Your task to perform on an android device: Show me popular videos on Youtube Image 0: 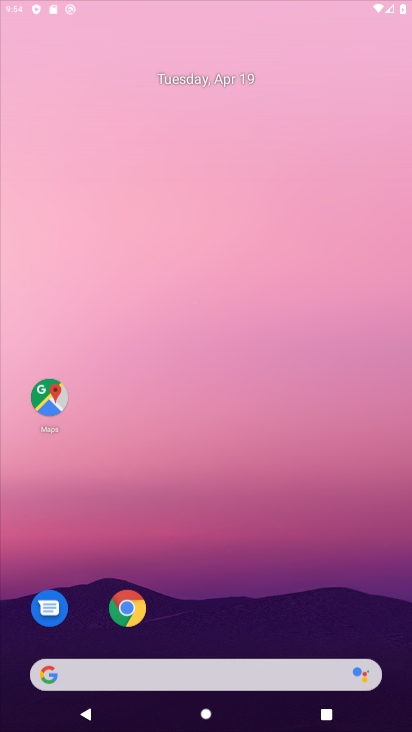
Step 0: press back button
Your task to perform on an android device: Show me popular videos on Youtube Image 1: 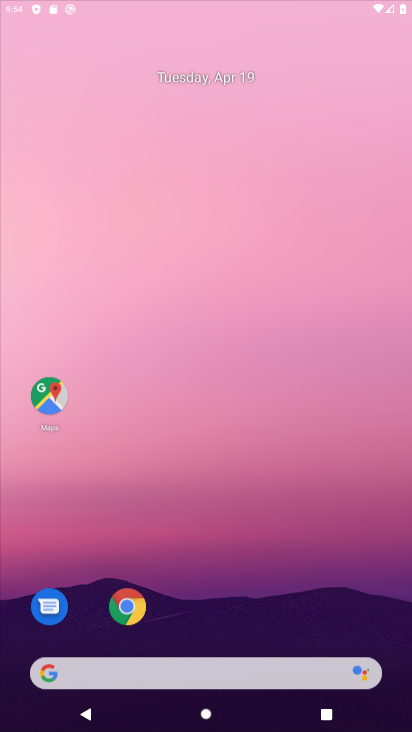
Step 1: drag from (218, 643) to (331, 210)
Your task to perform on an android device: Show me popular videos on Youtube Image 2: 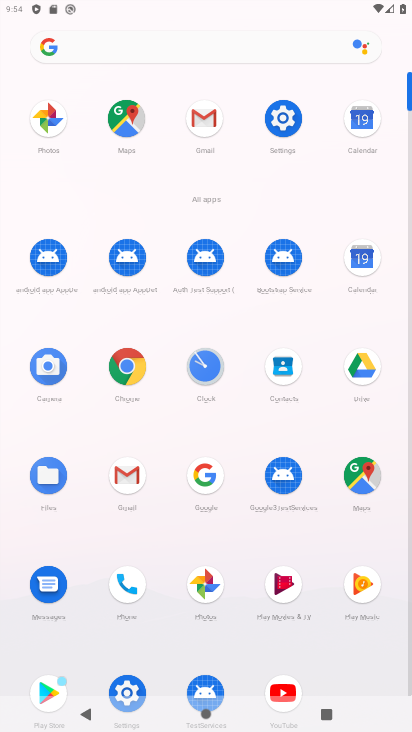
Step 2: click (266, 684)
Your task to perform on an android device: Show me popular videos on Youtube Image 3: 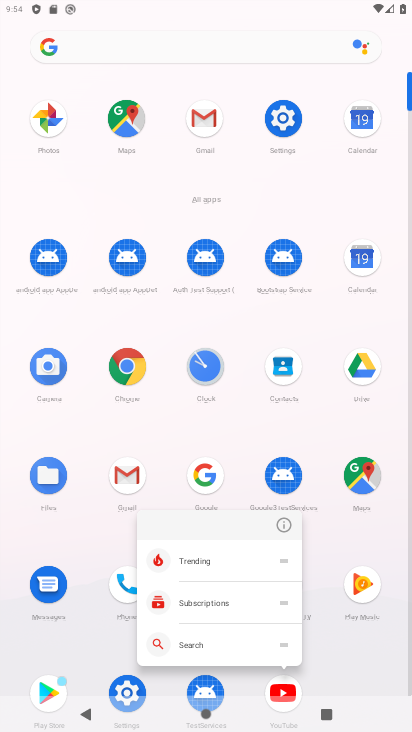
Step 3: click (284, 690)
Your task to perform on an android device: Show me popular videos on Youtube Image 4: 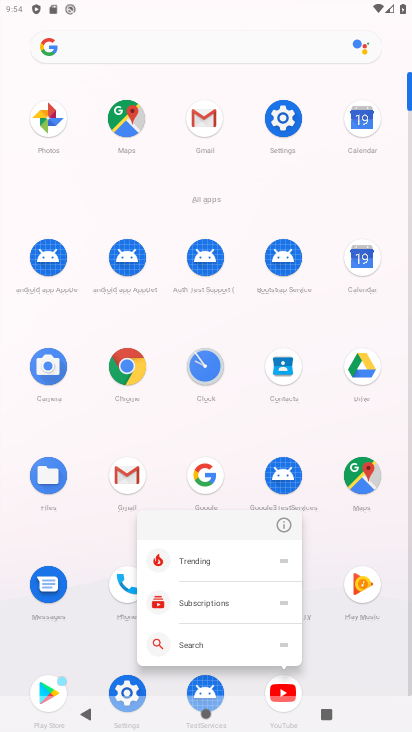
Step 4: click (284, 690)
Your task to perform on an android device: Show me popular videos on Youtube Image 5: 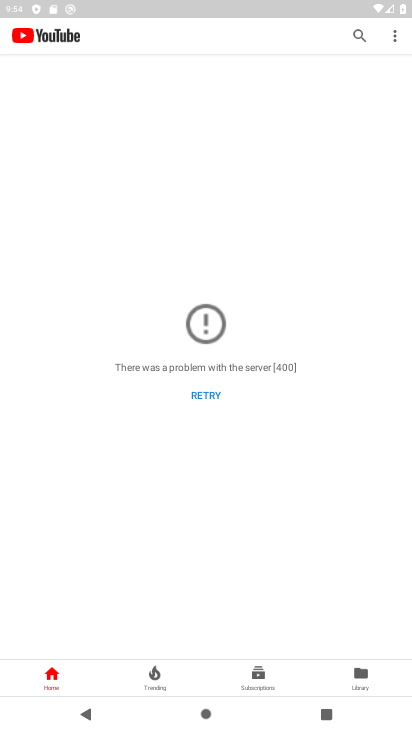
Step 5: task complete